Your task to perform on an android device: set the stopwatch Image 0: 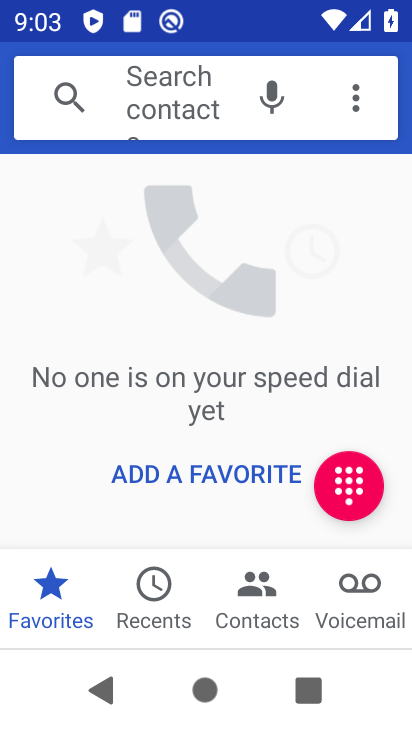
Step 0: press home button
Your task to perform on an android device: set the stopwatch Image 1: 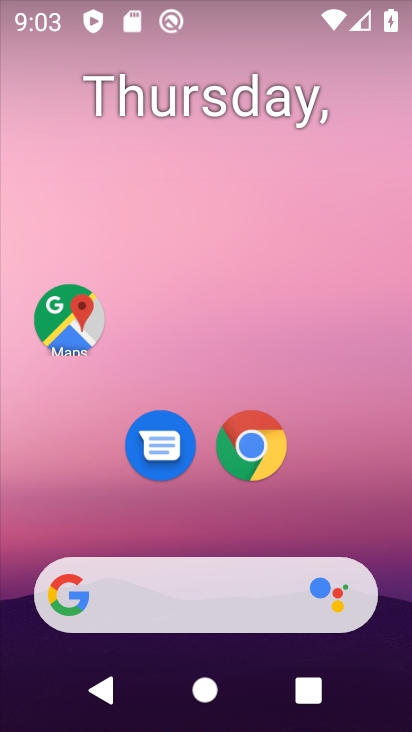
Step 1: drag from (244, 554) to (190, 144)
Your task to perform on an android device: set the stopwatch Image 2: 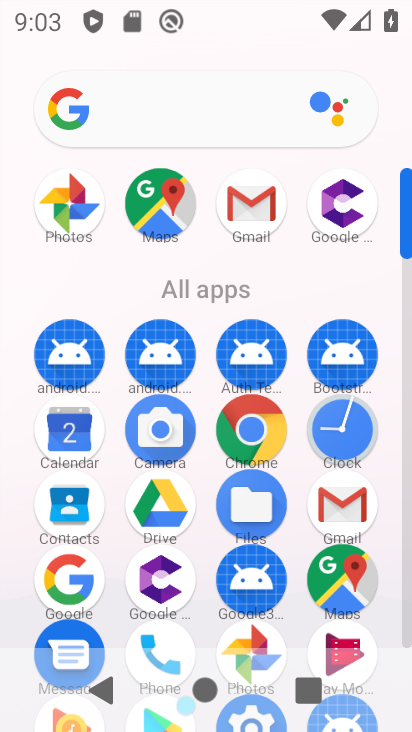
Step 2: click (344, 412)
Your task to perform on an android device: set the stopwatch Image 3: 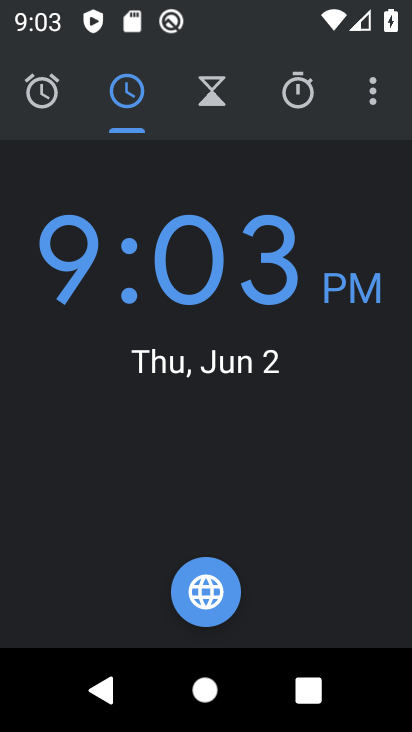
Step 3: click (295, 108)
Your task to perform on an android device: set the stopwatch Image 4: 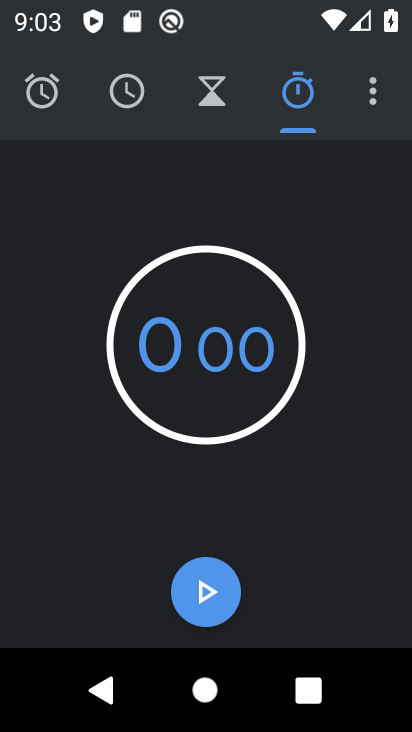
Step 4: task complete